Your task to perform on an android device: turn off notifications settings in the gmail app Image 0: 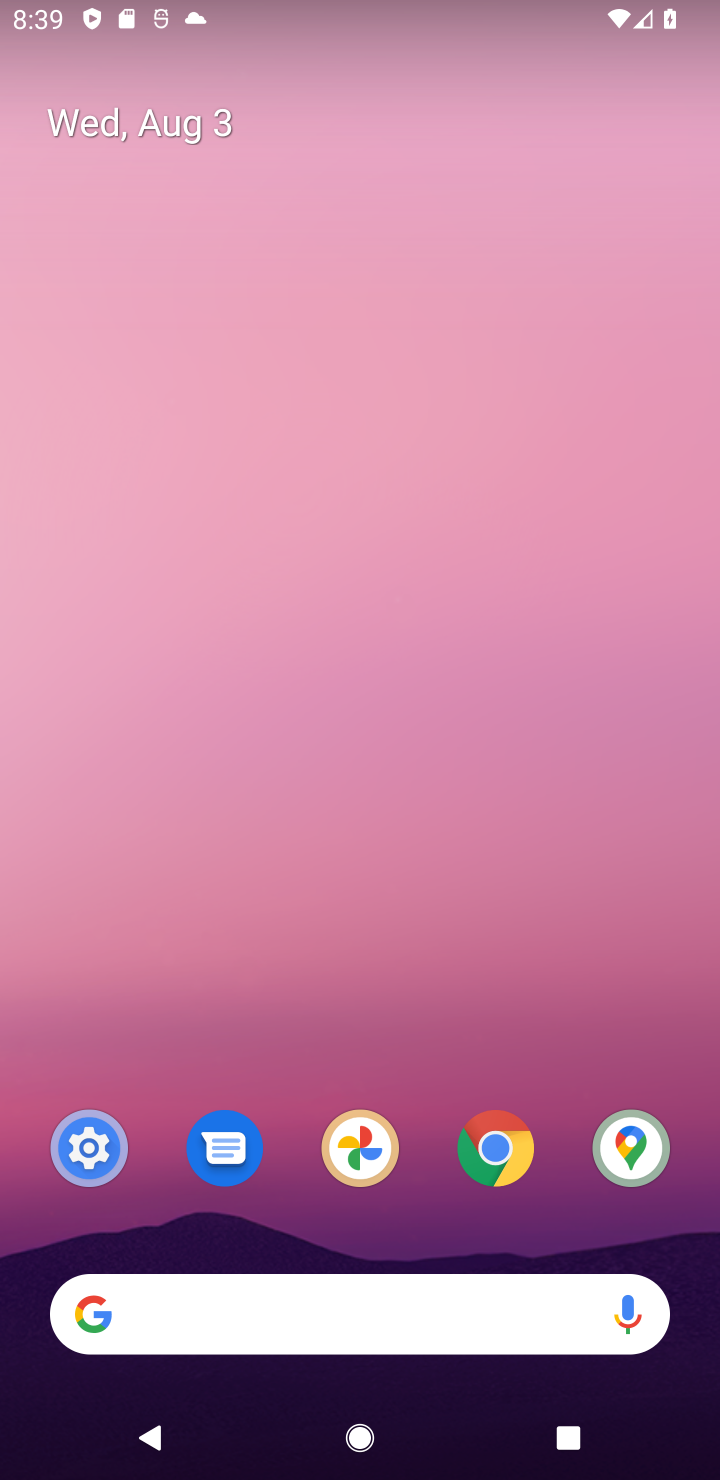
Step 0: click (111, 1153)
Your task to perform on an android device: turn off notifications settings in the gmail app Image 1: 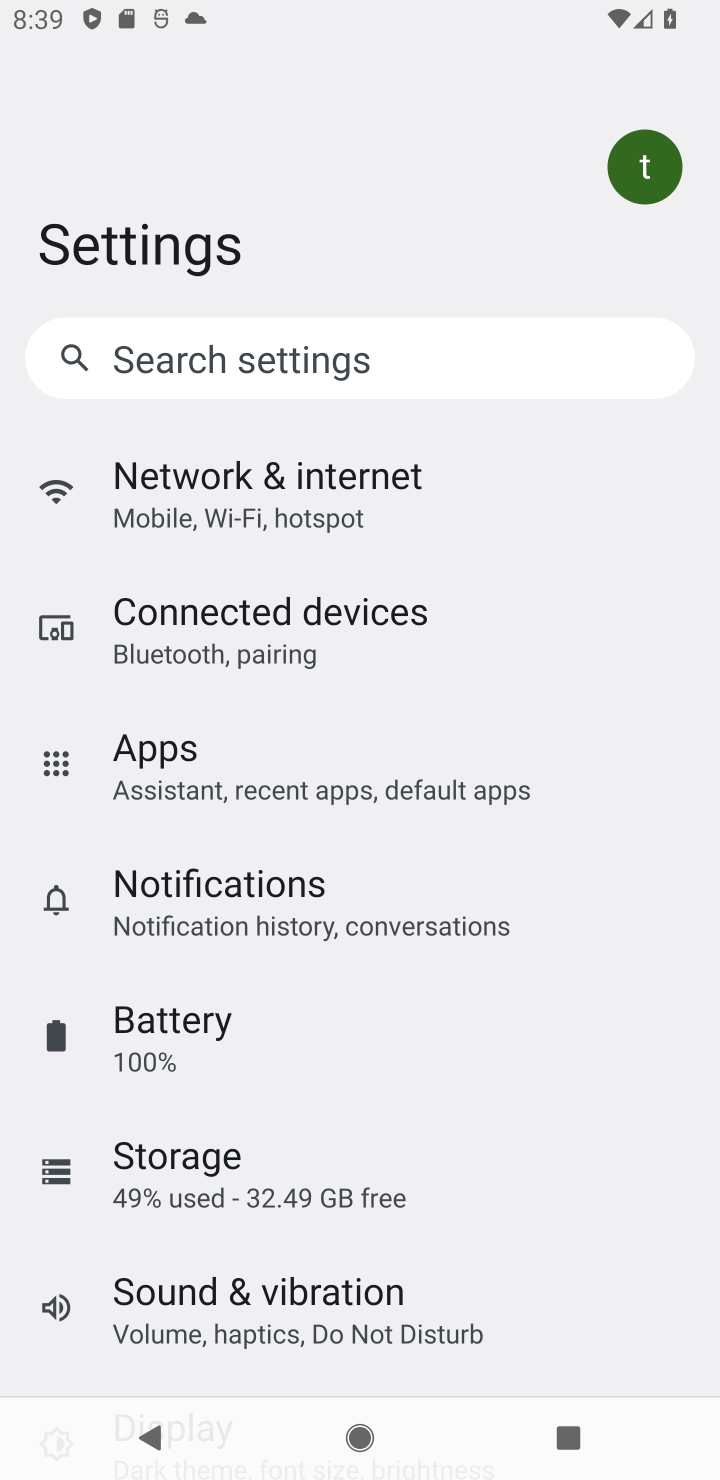
Step 1: press home button
Your task to perform on an android device: turn off notifications settings in the gmail app Image 2: 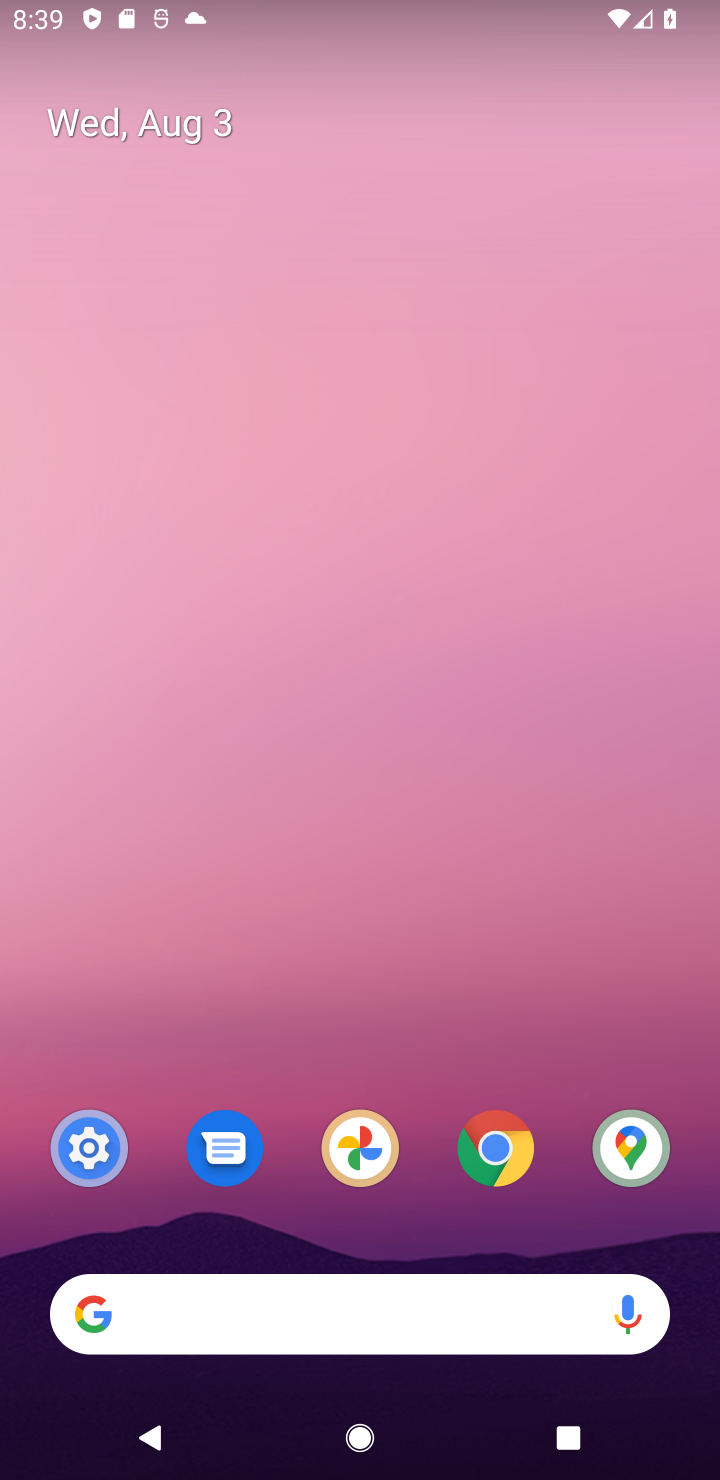
Step 2: drag from (422, 977) to (555, 169)
Your task to perform on an android device: turn off notifications settings in the gmail app Image 3: 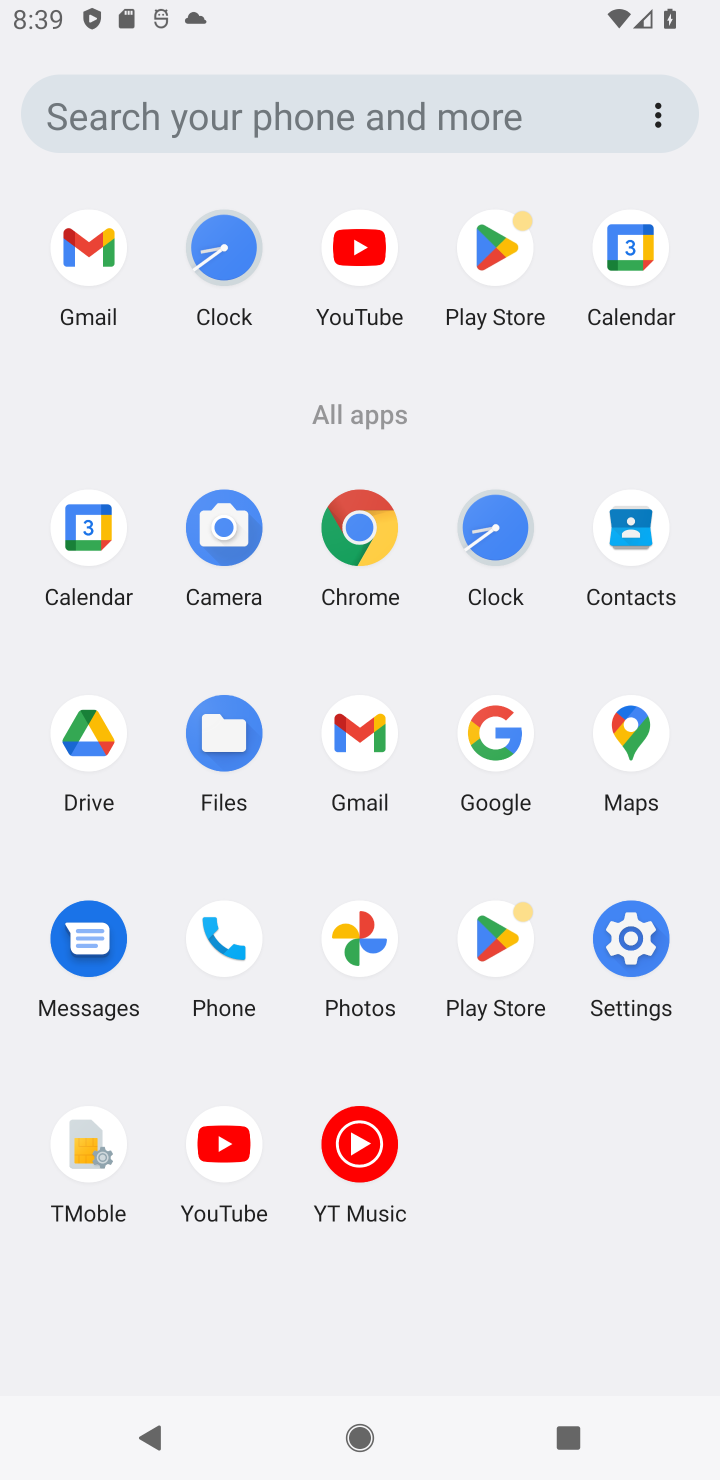
Step 3: click (357, 731)
Your task to perform on an android device: turn off notifications settings in the gmail app Image 4: 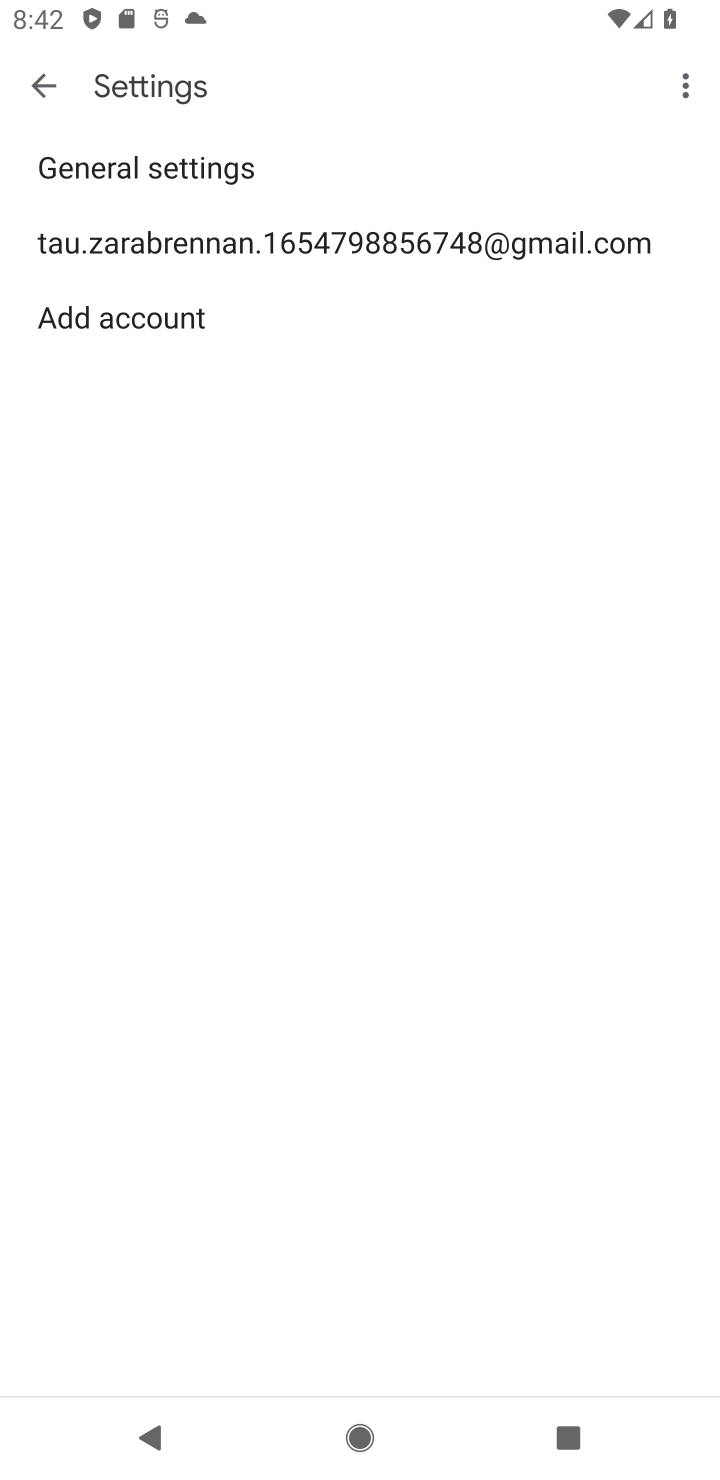
Step 4: task complete